Your task to perform on an android device: Search for Mexican restaurants on Maps Image 0: 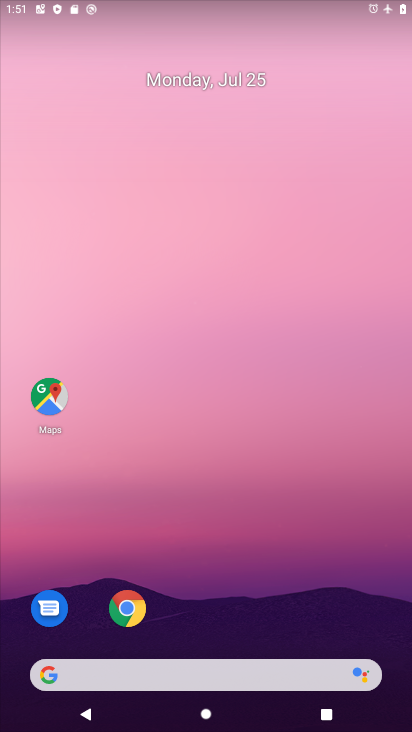
Step 0: drag from (325, 607) to (265, 0)
Your task to perform on an android device: Search for Mexican restaurants on Maps Image 1: 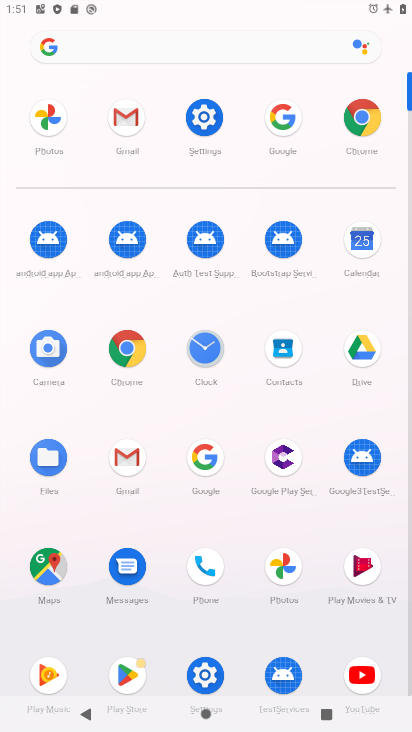
Step 1: click (48, 572)
Your task to perform on an android device: Search for Mexican restaurants on Maps Image 2: 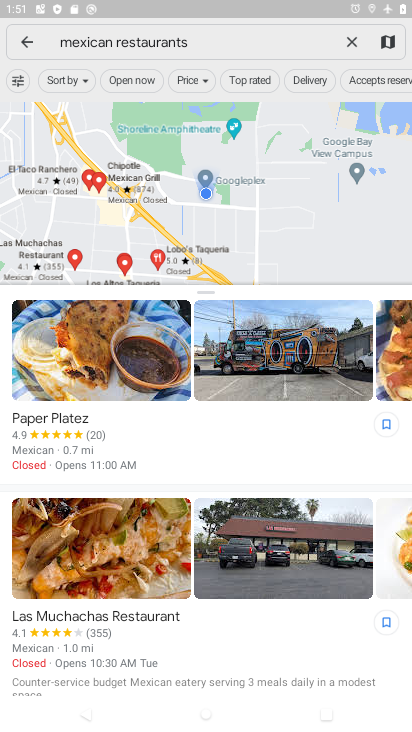
Step 2: task complete